Your task to perform on an android device: empty trash in google photos Image 0: 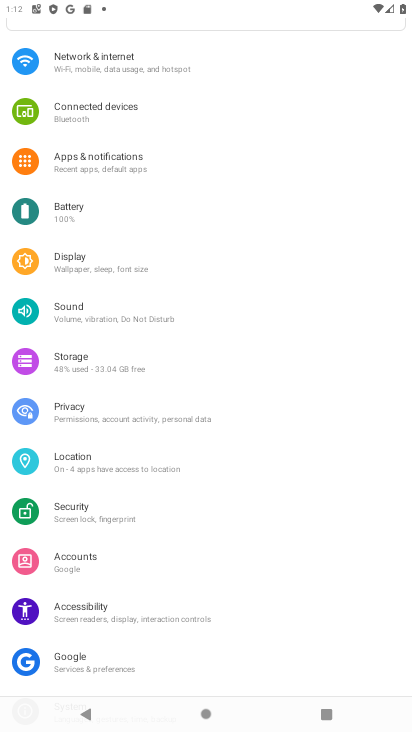
Step 0: press home button
Your task to perform on an android device: empty trash in google photos Image 1: 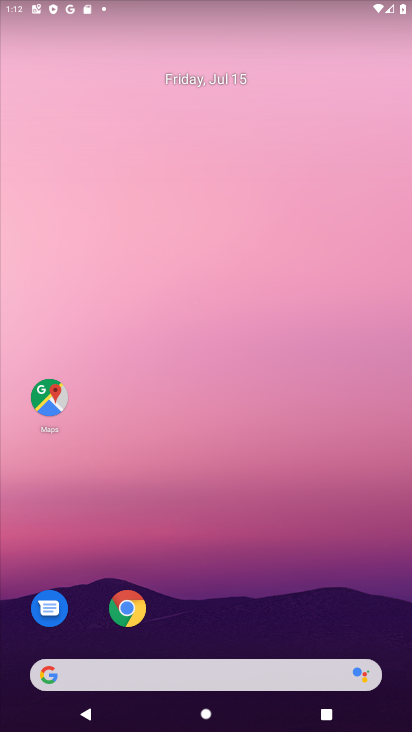
Step 1: drag from (254, 717) to (391, 184)
Your task to perform on an android device: empty trash in google photos Image 2: 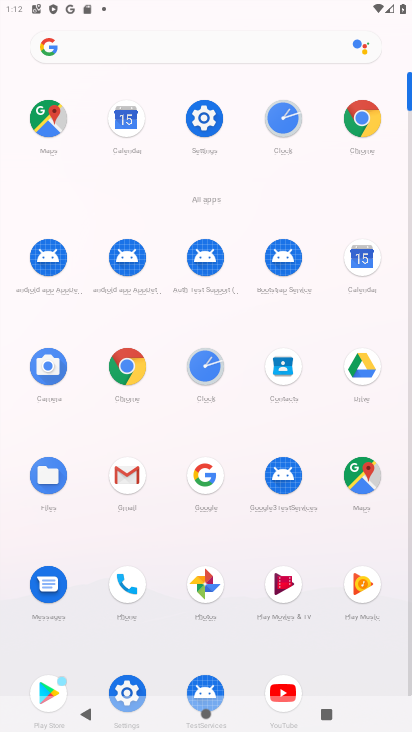
Step 2: click (210, 584)
Your task to perform on an android device: empty trash in google photos Image 3: 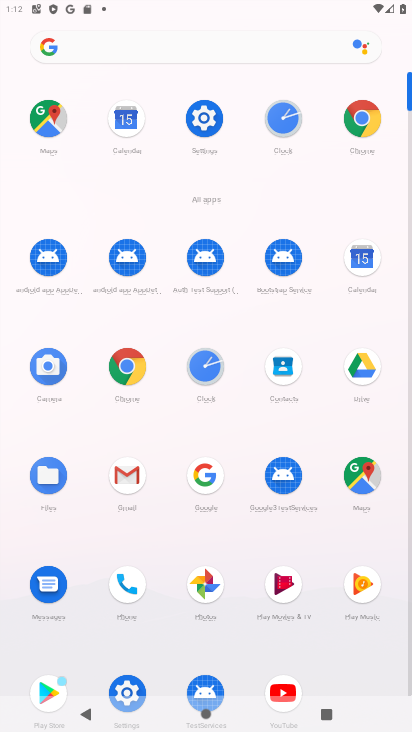
Step 3: click (210, 584)
Your task to perform on an android device: empty trash in google photos Image 4: 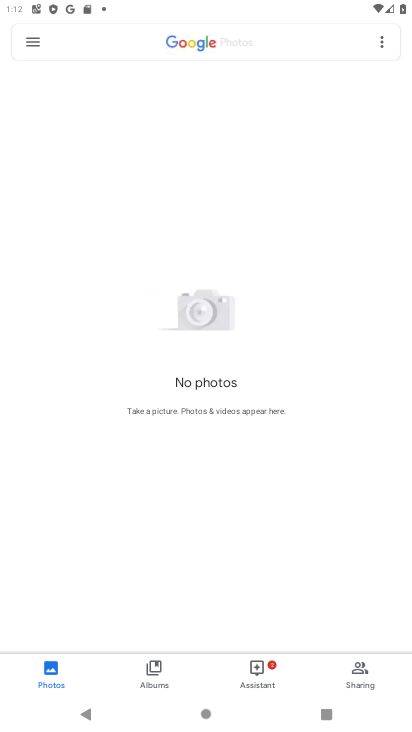
Step 4: click (37, 39)
Your task to perform on an android device: empty trash in google photos Image 5: 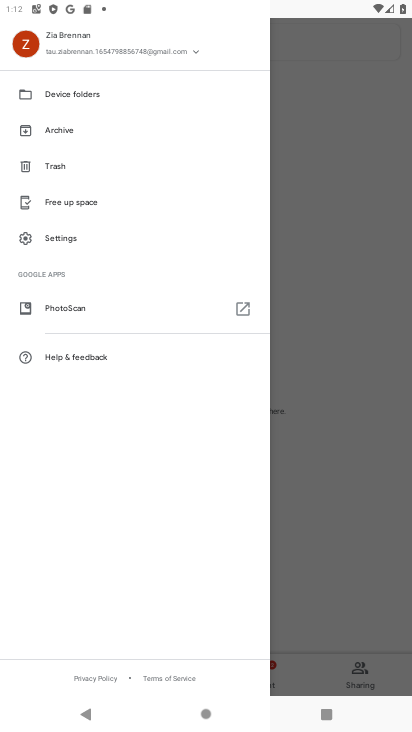
Step 5: click (56, 164)
Your task to perform on an android device: empty trash in google photos Image 6: 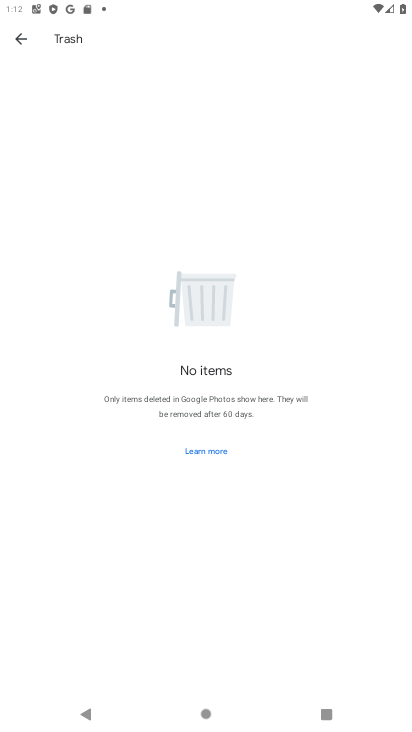
Step 6: task complete